Your task to perform on an android device: See recent photos Image 0: 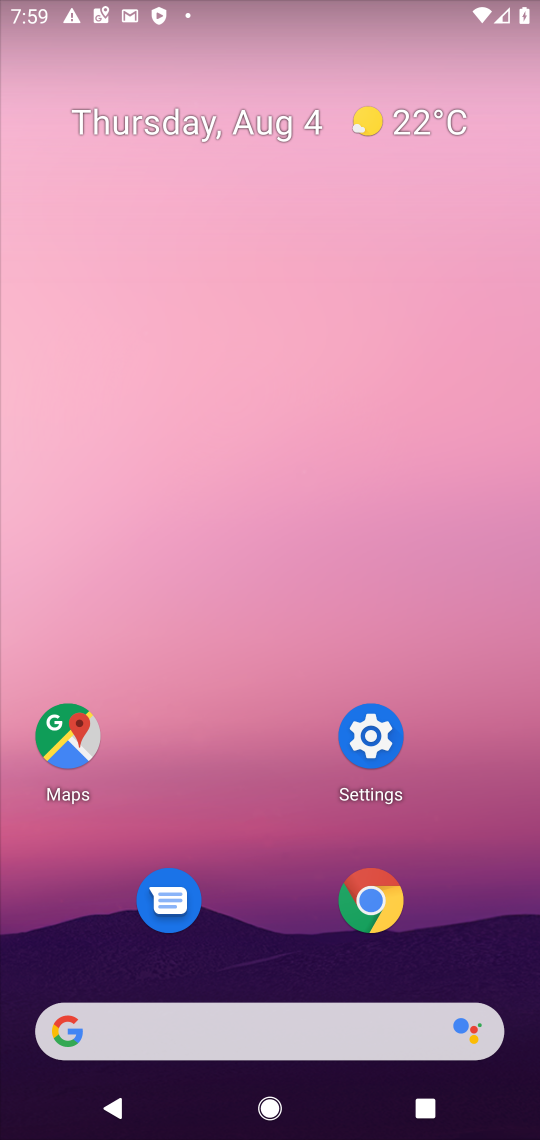
Step 0: drag from (256, 1026) to (465, 211)
Your task to perform on an android device: See recent photos Image 1: 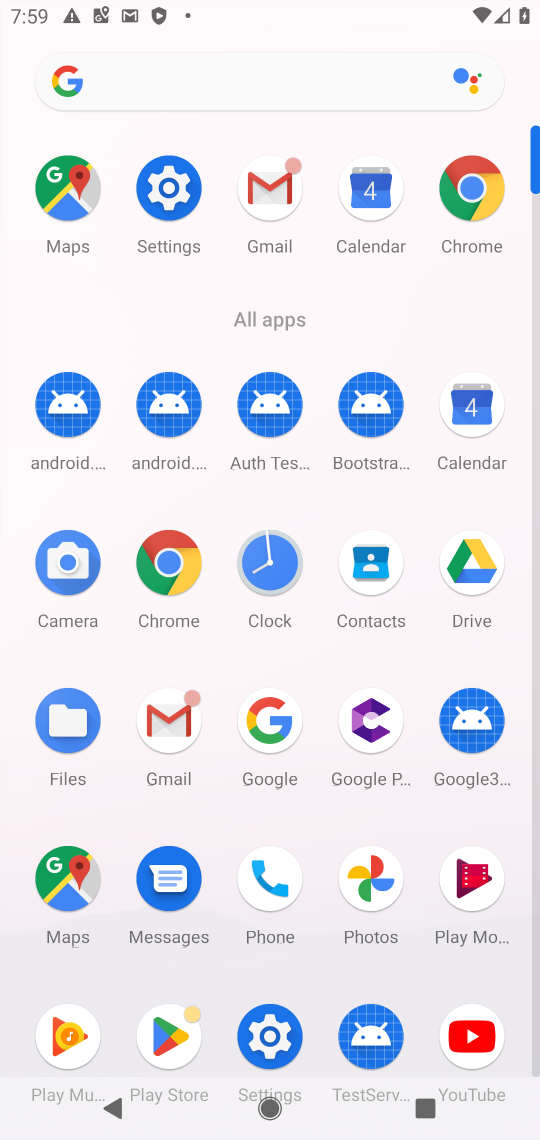
Step 1: click (371, 871)
Your task to perform on an android device: See recent photos Image 2: 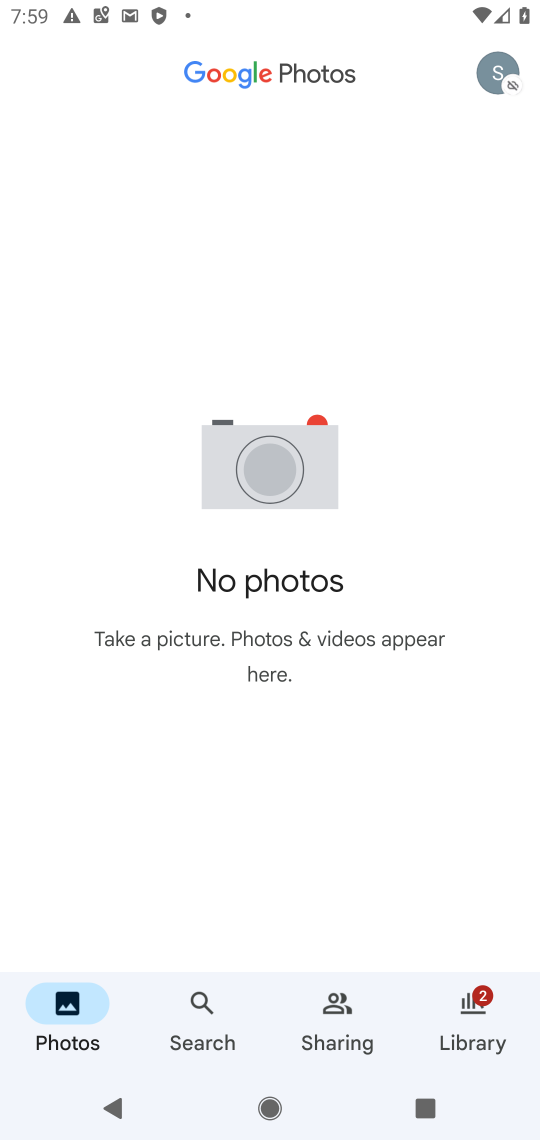
Step 2: click (209, 1003)
Your task to perform on an android device: See recent photos Image 3: 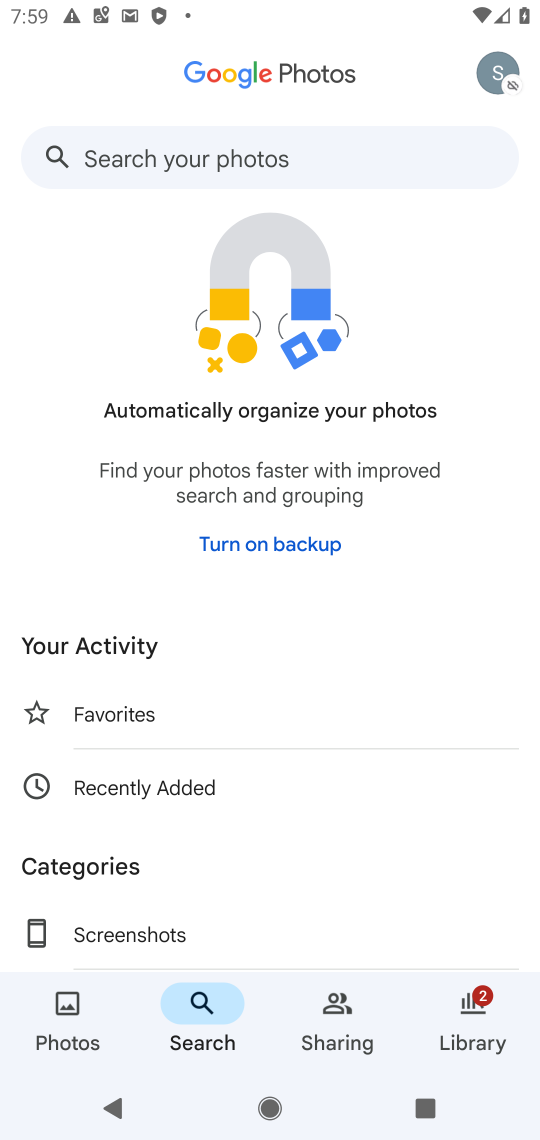
Step 3: click (175, 780)
Your task to perform on an android device: See recent photos Image 4: 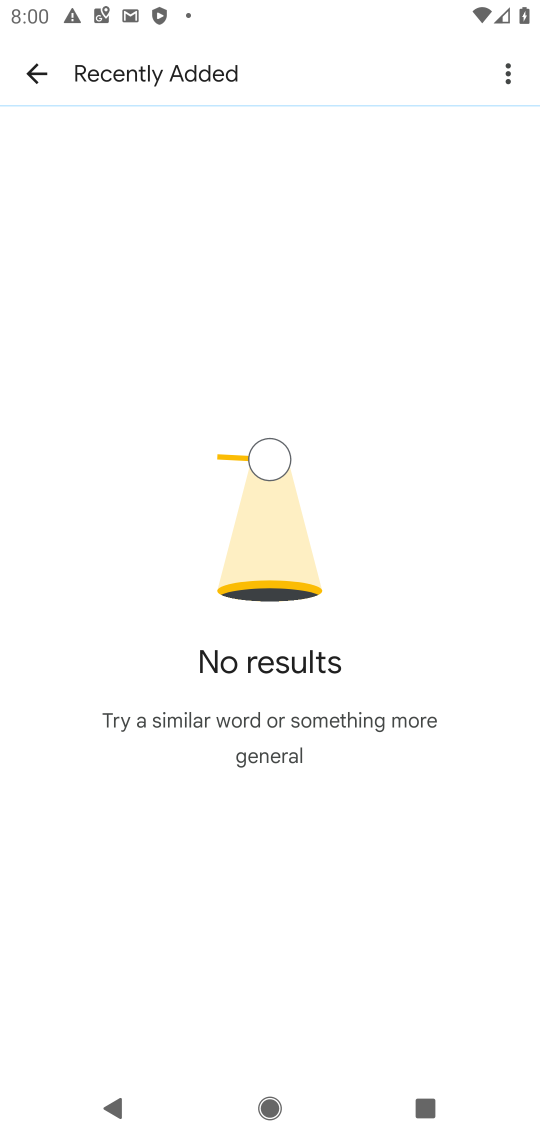
Step 4: task complete